Your task to perform on an android device: Open wifi settings Image 0: 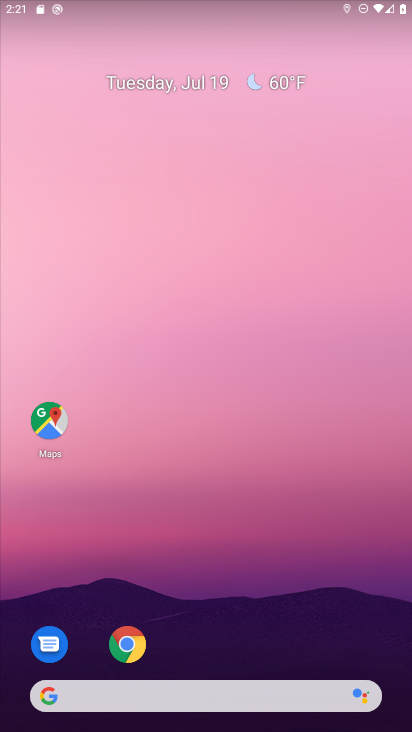
Step 0: drag from (184, 645) to (130, 143)
Your task to perform on an android device: Open wifi settings Image 1: 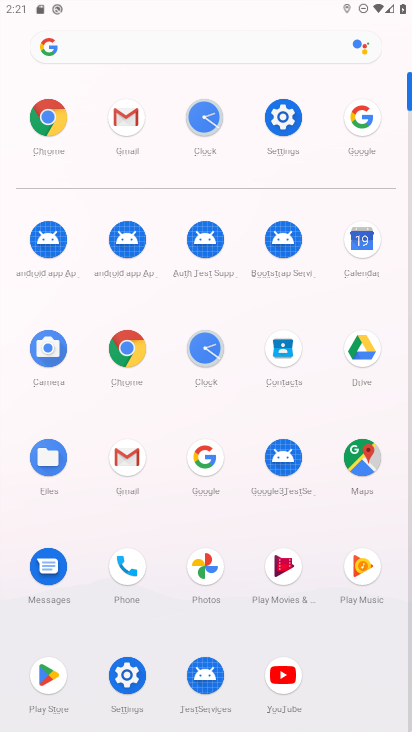
Step 1: click (272, 119)
Your task to perform on an android device: Open wifi settings Image 2: 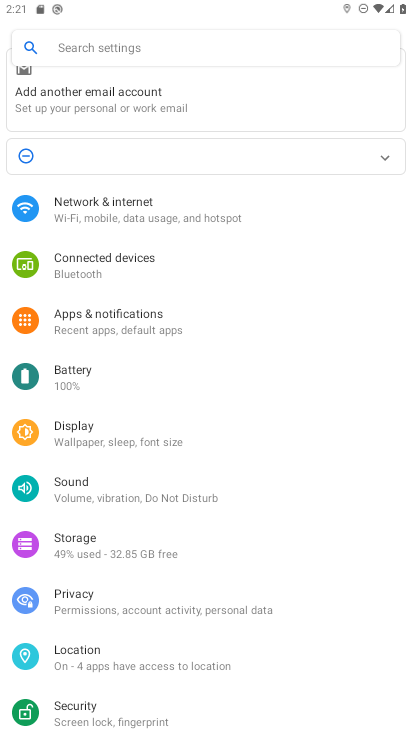
Step 2: click (72, 213)
Your task to perform on an android device: Open wifi settings Image 3: 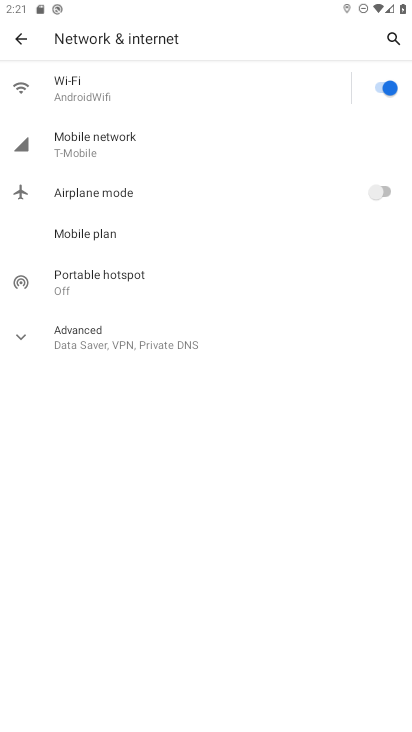
Step 3: click (68, 96)
Your task to perform on an android device: Open wifi settings Image 4: 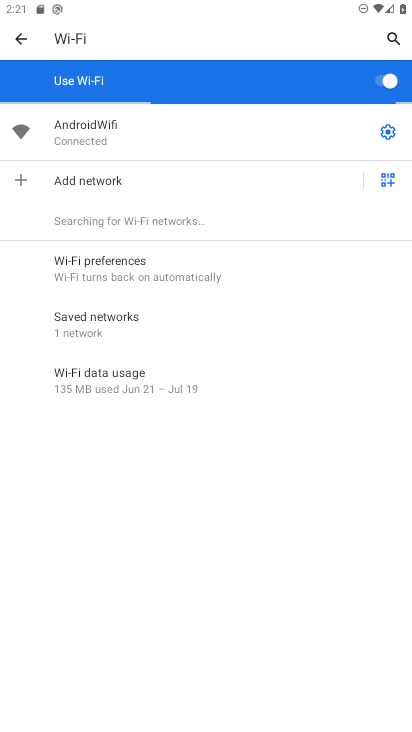
Step 4: task complete